Your task to perform on an android device: turn smart compose on in the gmail app Image 0: 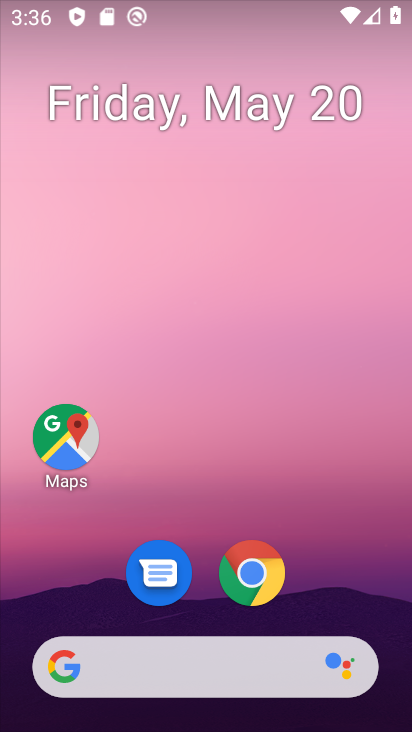
Step 0: drag from (343, 545) to (334, 243)
Your task to perform on an android device: turn smart compose on in the gmail app Image 1: 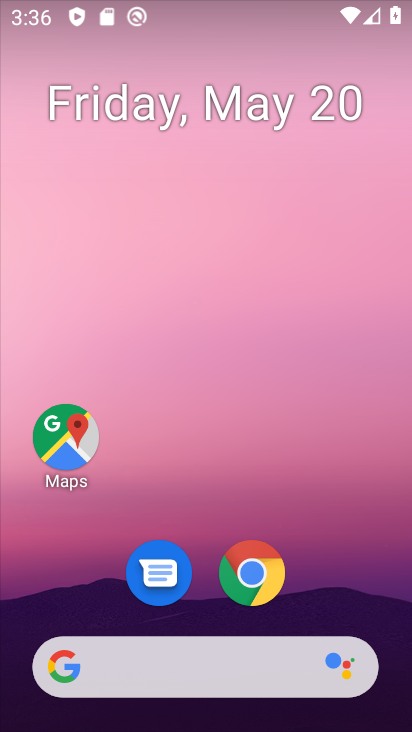
Step 1: drag from (350, 542) to (284, 178)
Your task to perform on an android device: turn smart compose on in the gmail app Image 2: 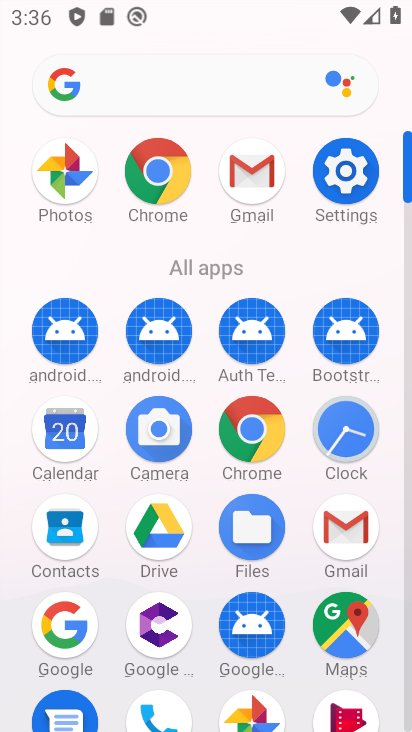
Step 2: click (265, 205)
Your task to perform on an android device: turn smart compose on in the gmail app Image 3: 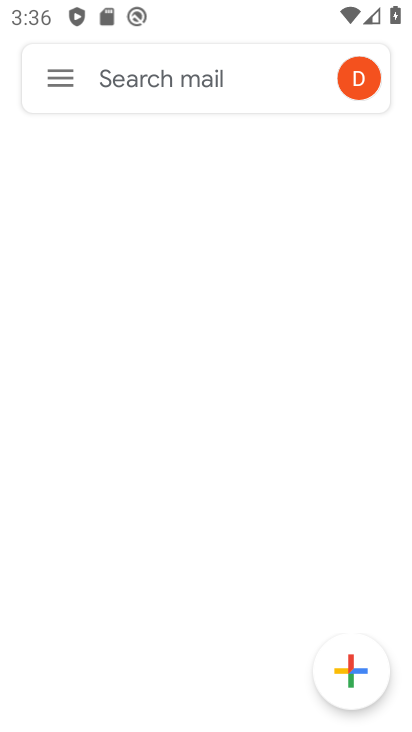
Step 3: click (54, 80)
Your task to perform on an android device: turn smart compose on in the gmail app Image 4: 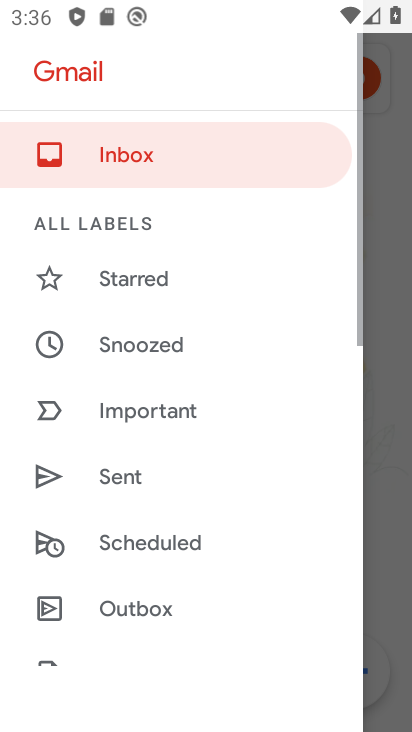
Step 4: drag from (157, 601) to (159, 277)
Your task to perform on an android device: turn smart compose on in the gmail app Image 5: 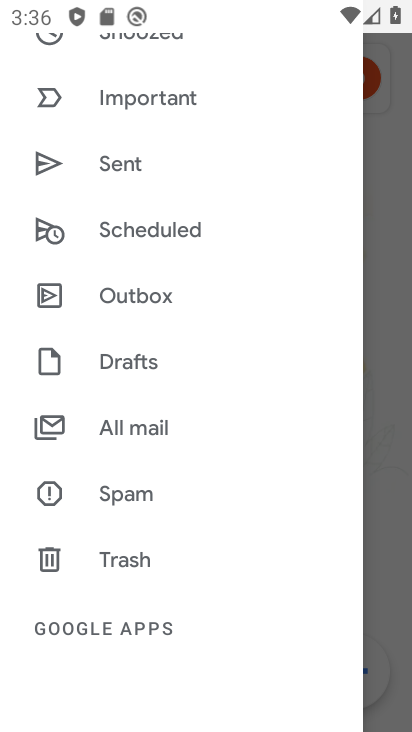
Step 5: drag from (187, 559) to (184, 180)
Your task to perform on an android device: turn smart compose on in the gmail app Image 6: 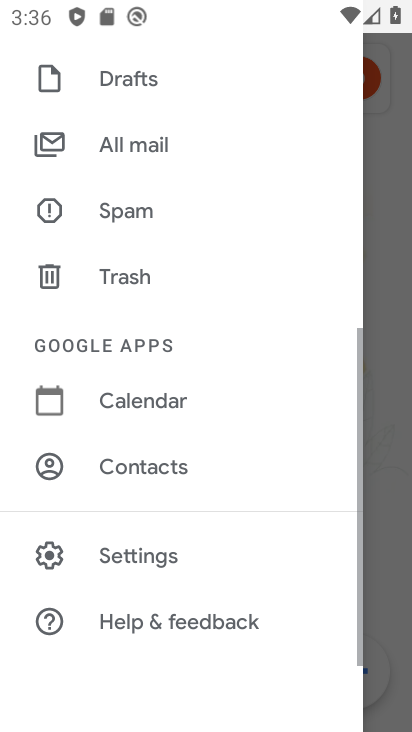
Step 6: click (166, 549)
Your task to perform on an android device: turn smart compose on in the gmail app Image 7: 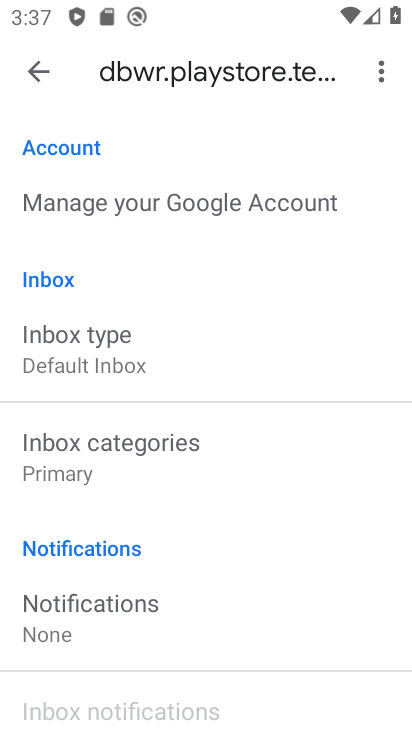
Step 7: task complete